Your task to perform on an android device: Go to calendar. Show me events next week Image 0: 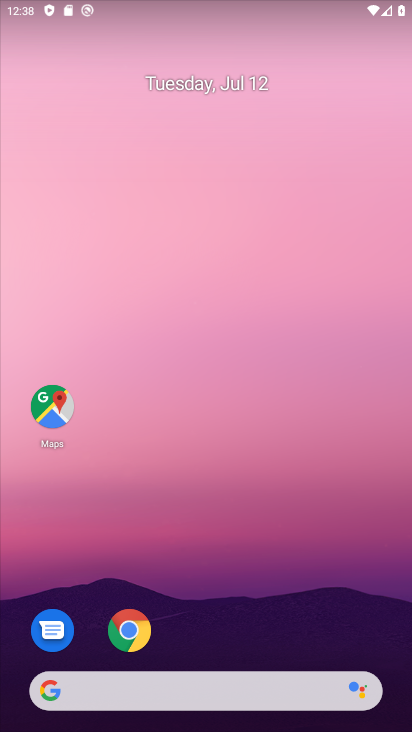
Step 0: drag from (369, 611) to (322, 177)
Your task to perform on an android device: Go to calendar. Show me events next week Image 1: 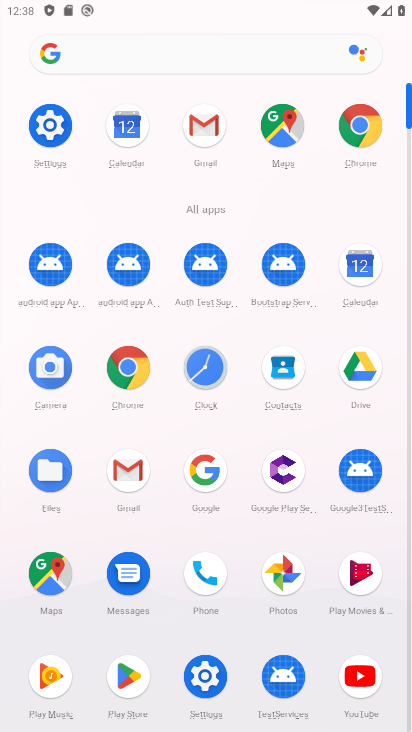
Step 1: click (363, 267)
Your task to perform on an android device: Go to calendar. Show me events next week Image 2: 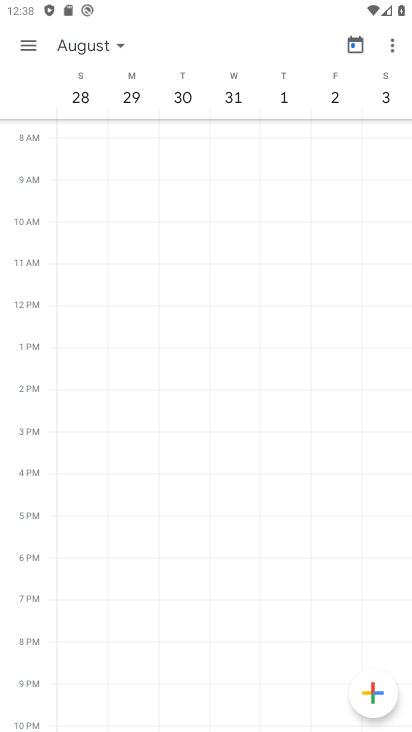
Step 2: click (112, 40)
Your task to perform on an android device: Go to calendar. Show me events next week Image 3: 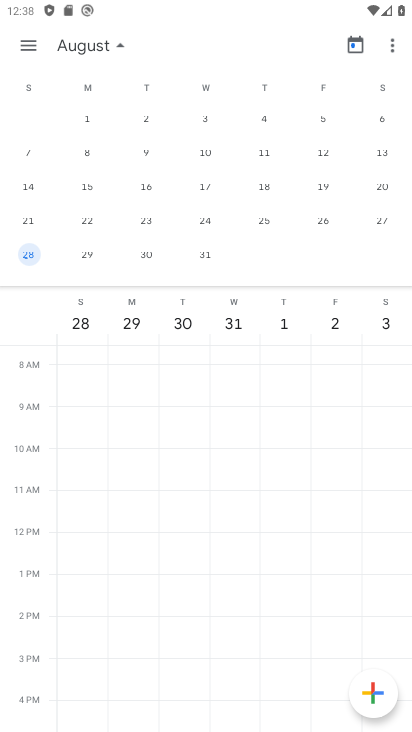
Step 3: drag from (28, 188) to (364, 195)
Your task to perform on an android device: Go to calendar. Show me events next week Image 4: 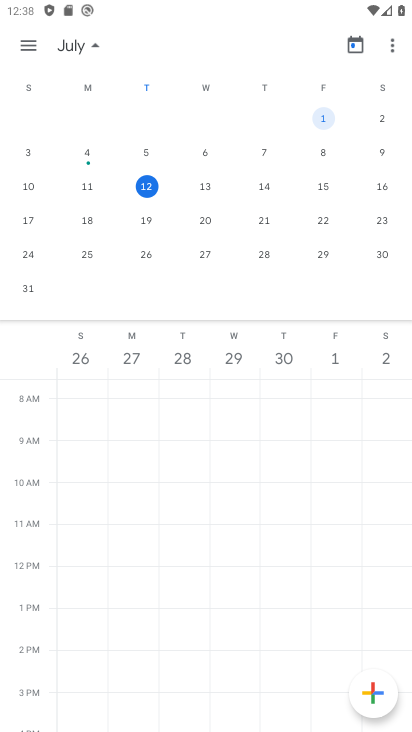
Step 4: click (24, 221)
Your task to perform on an android device: Go to calendar. Show me events next week Image 5: 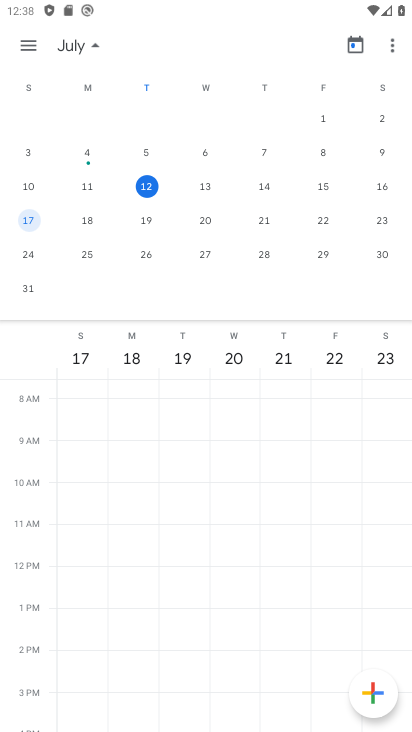
Step 5: task complete